Your task to perform on an android device: open a bookmark in the chrome app Image 0: 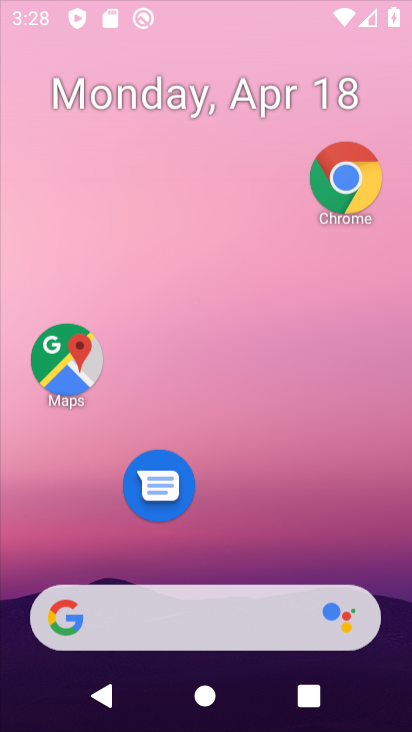
Step 0: click (348, 134)
Your task to perform on an android device: open a bookmark in the chrome app Image 1: 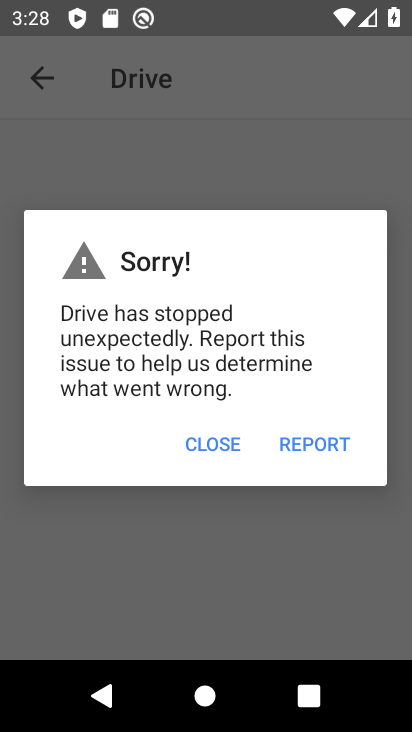
Step 1: press home button
Your task to perform on an android device: open a bookmark in the chrome app Image 2: 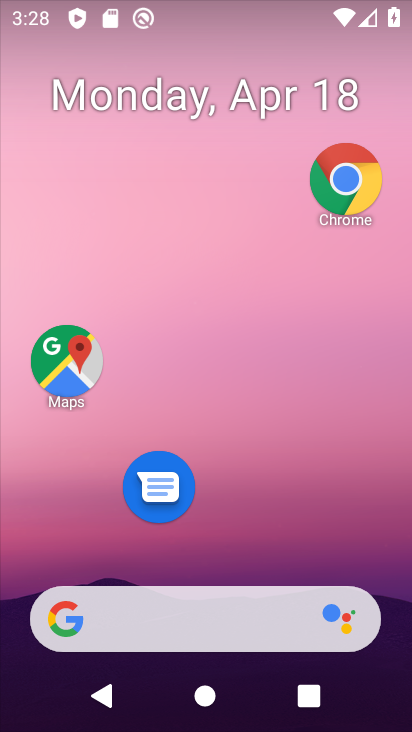
Step 2: drag from (234, 521) to (367, 18)
Your task to perform on an android device: open a bookmark in the chrome app Image 3: 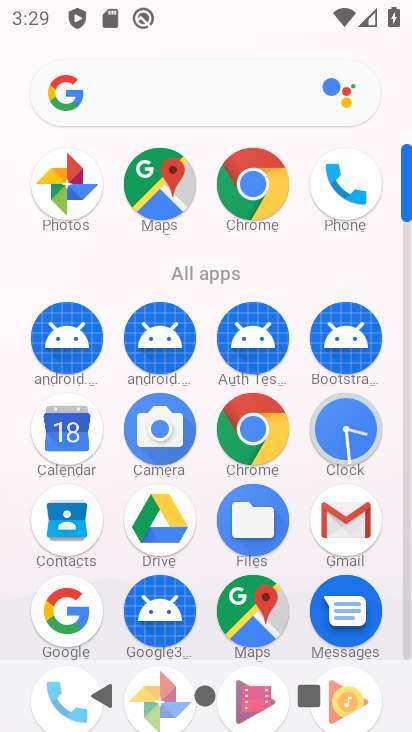
Step 3: click (263, 190)
Your task to perform on an android device: open a bookmark in the chrome app Image 4: 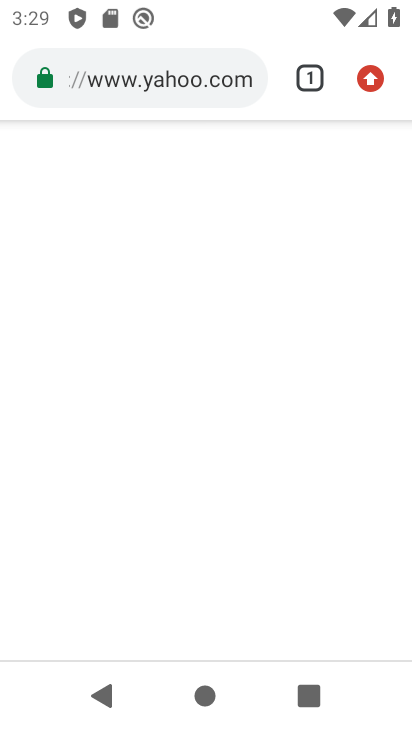
Step 4: click (376, 92)
Your task to perform on an android device: open a bookmark in the chrome app Image 5: 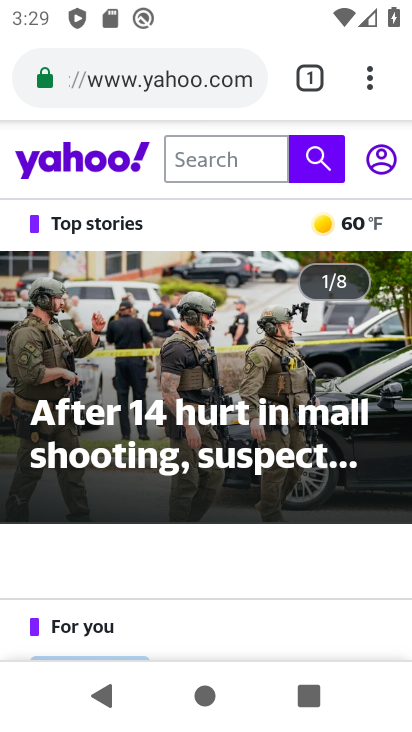
Step 5: click (368, 81)
Your task to perform on an android device: open a bookmark in the chrome app Image 6: 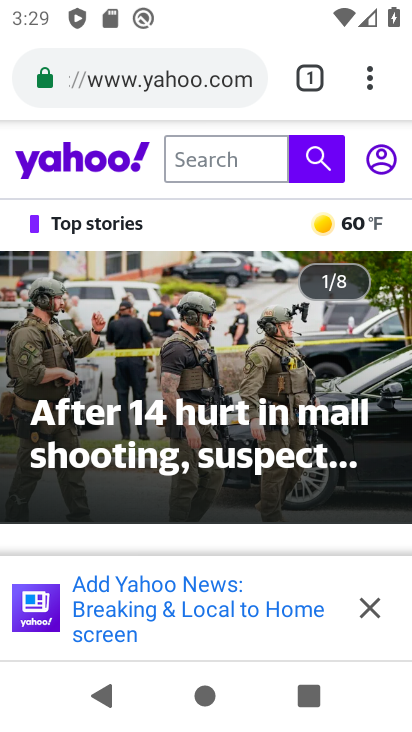
Step 6: click (371, 78)
Your task to perform on an android device: open a bookmark in the chrome app Image 7: 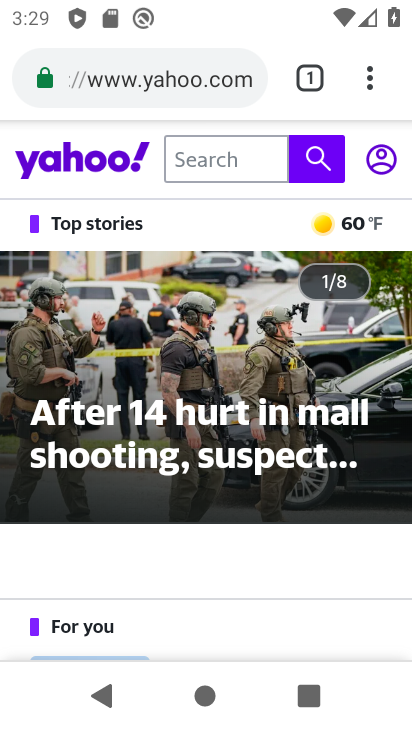
Step 7: click (365, 89)
Your task to perform on an android device: open a bookmark in the chrome app Image 8: 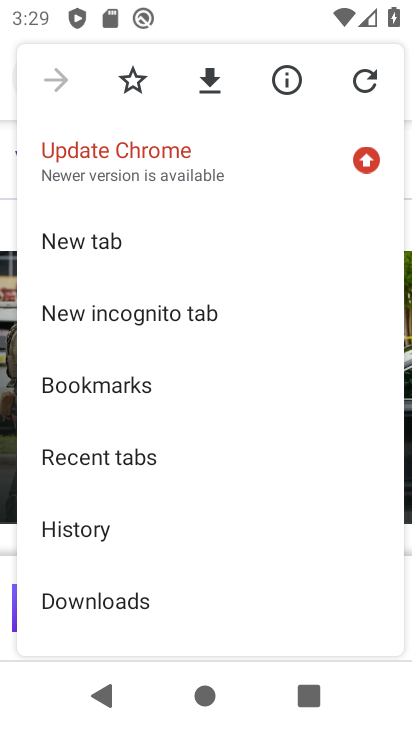
Step 8: click (96, 385)
Your task to perform on an android device: open a bookmark in the chrome app Image 9: 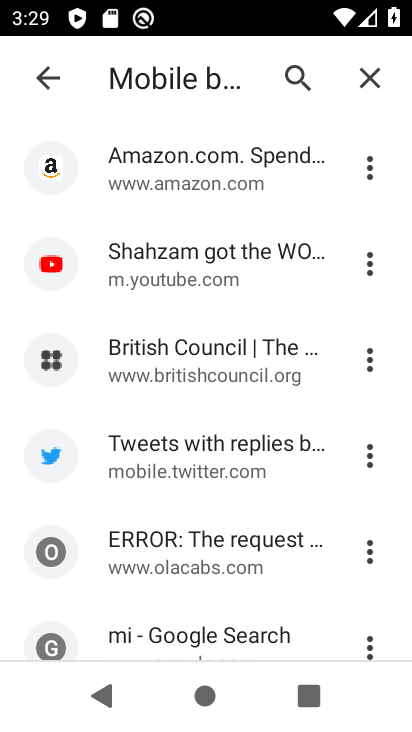
Step 9: task complete